Your task to perform on an android device: Add razer blade to the cart on costco, then select checkout. Image 0: 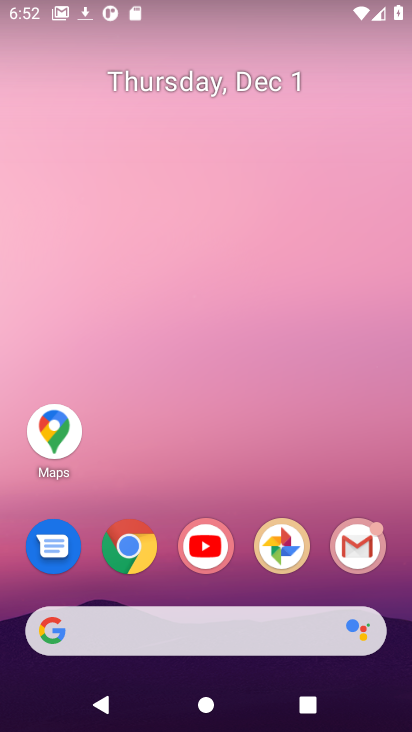
Step 0: click (134, 560)
Your task to perform on an android device: Add razer blade to the cart on costco, then select checkout. Image 1: 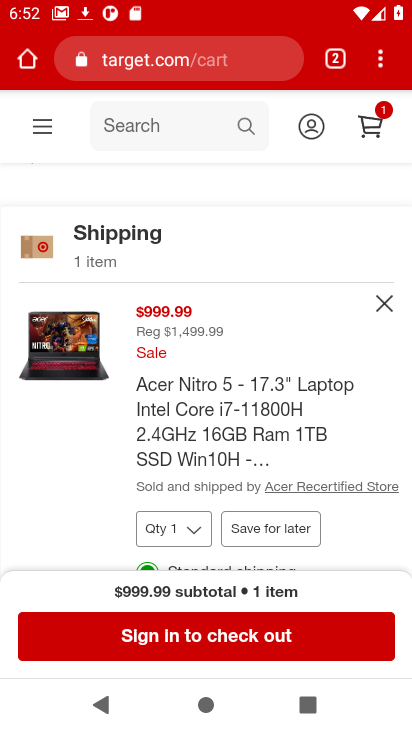
Step 1: click (148, 67)
Your task to perform on an android device: Add razer blade to the cart on costco, then select checkout. Image 2: 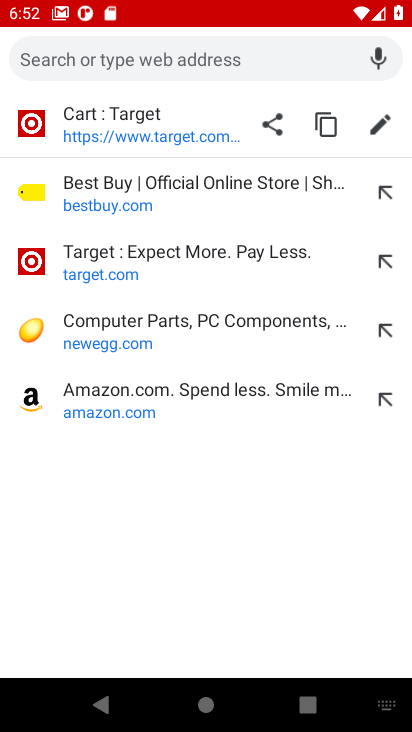
Step 2: type "costco.com"
Your task to perform on an android device: Add razer blade to the cart on costco, then select checkout. Image 3: 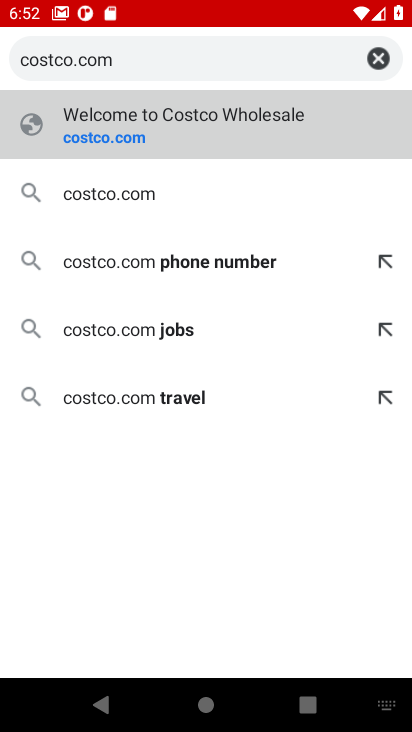
Step 3: click (89, 140)
Your task to perform on an android device: Add razer blade to the cart on costco, then select checkout. Image 4: 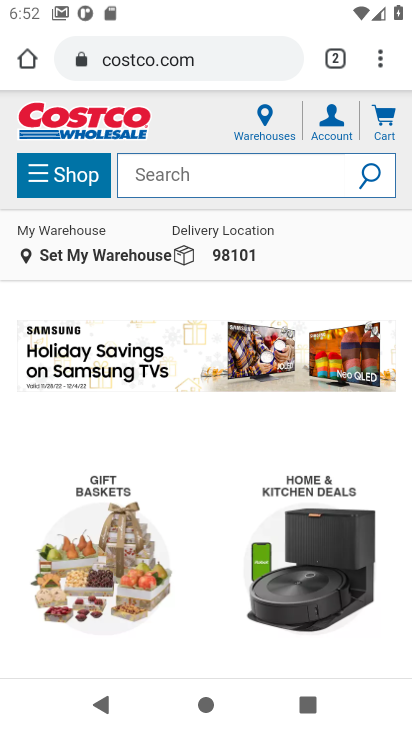
Step 4: click (162, 181)
Your task to perform on an android device: Add razer blade to the cart on costco, then select checkout. Image 5: 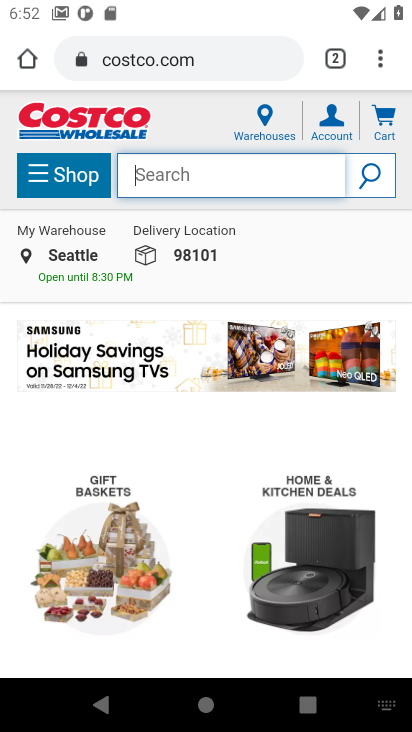
Step 5: type " razer blade"
Your task to perform on an android device: Add razer blade to the cart on costco, then select checkout. Image 6: 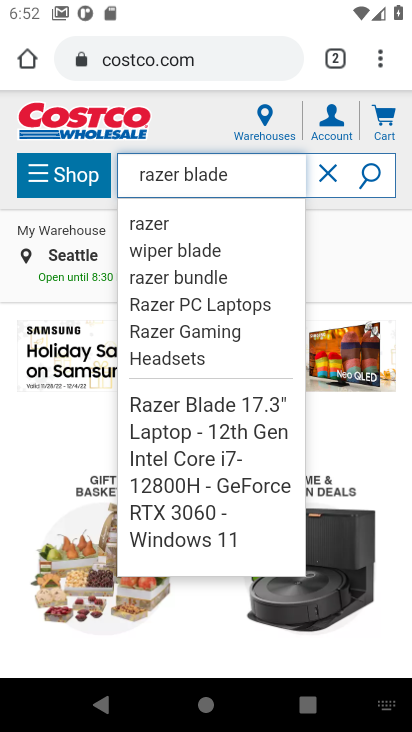
Step 6: click (373, 181)
Your task to perform on an android device: Add razer blade to the cart on costco, then select checkout. Image 7: 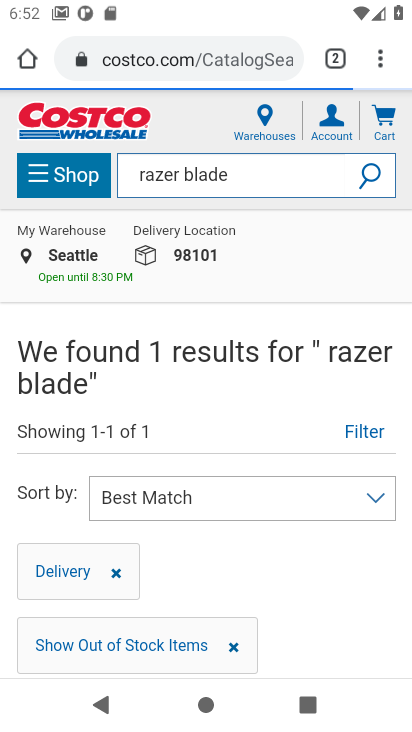
Step 7: drag from (235, 484) to (220, 249)
Your task to perform on an android device: Add razer blade to the cart on costco, then select checkout. Image 8: 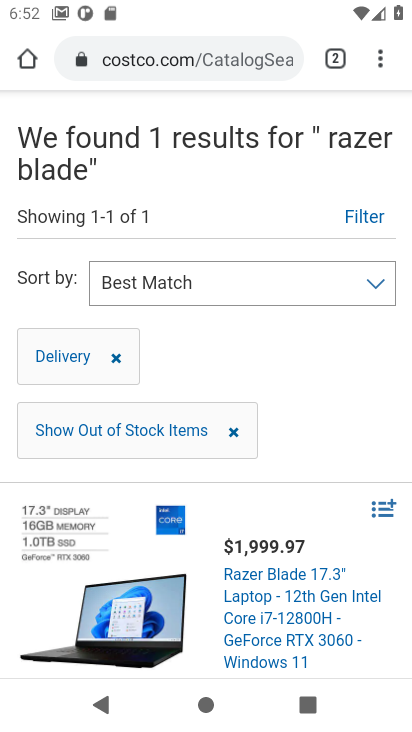
Step 8: drag from (236, 406) to (215, 214)
Your task to perform on an android device: Add razer blade to the cart on costco, then select checkout. Image 9: 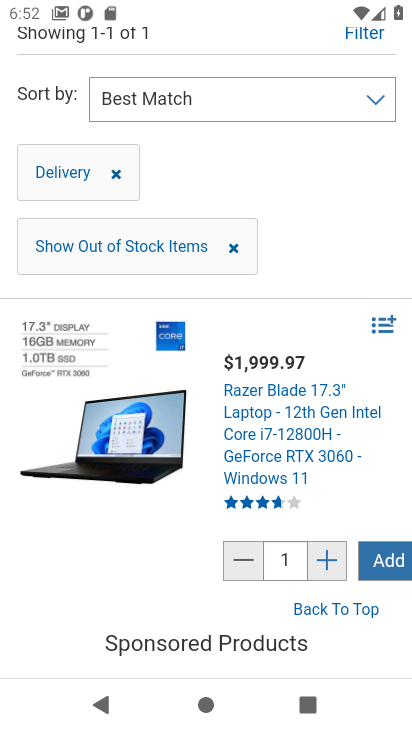
Step 9: click (378, 561)
Your task to perform on an android device: Add razer blade to the cart on costco, then select checkout. Image 10: 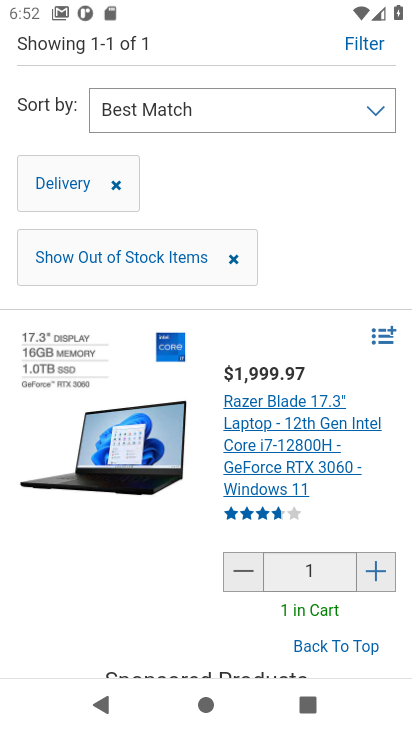
Step 10: drag from (338, 175) to (314, 450)
Your task to perform on an android device: Add razer blade to the cart on costco, then select checkout. Image 11: 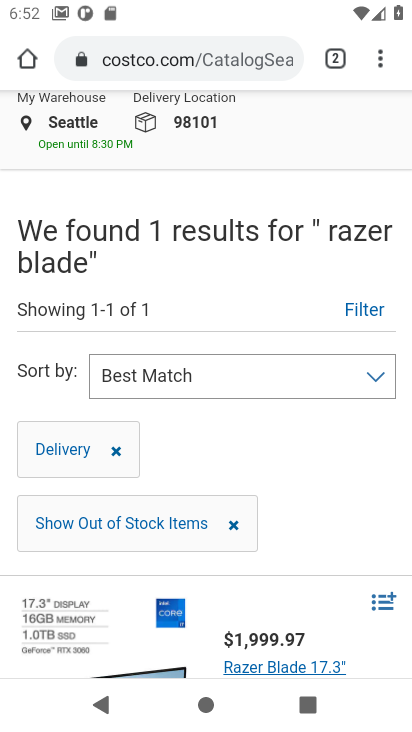
Step 11: drag from (371, 160) to (350, 472)
Your task to perform on an android device: Add razer blade to the cart on costco, then select checkout. Image 12: 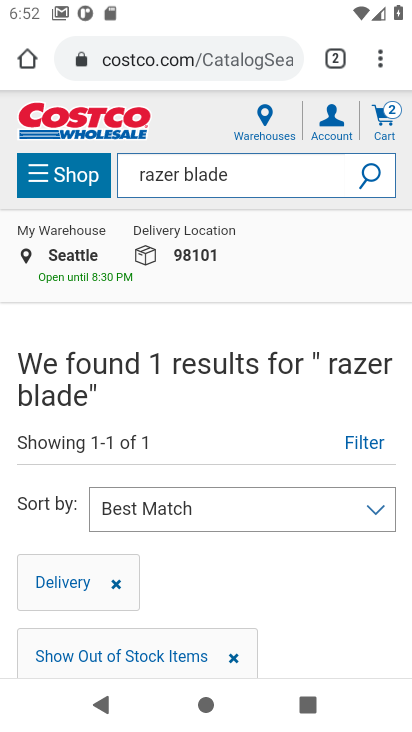
Step 12: click (387, 121)
Your task to perform on an android device: Add razer blade to the cart on costco, then select checkout. Image 13: 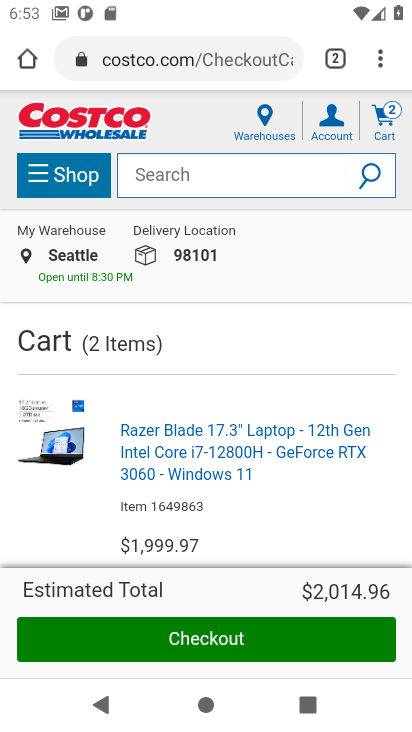
Step 13: click (200, 650)
Your task to perform on an android device: Add razer blade to the cart on costco, then select checkout. Image 14: 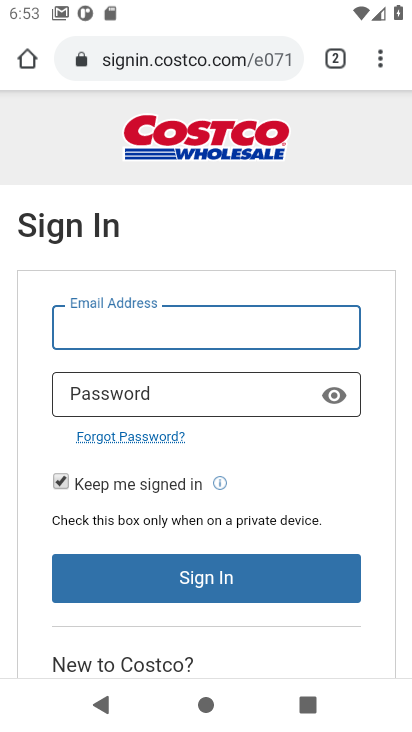
Step 14: task complete